Your task to perform on an android device: check out phone information Image 0: 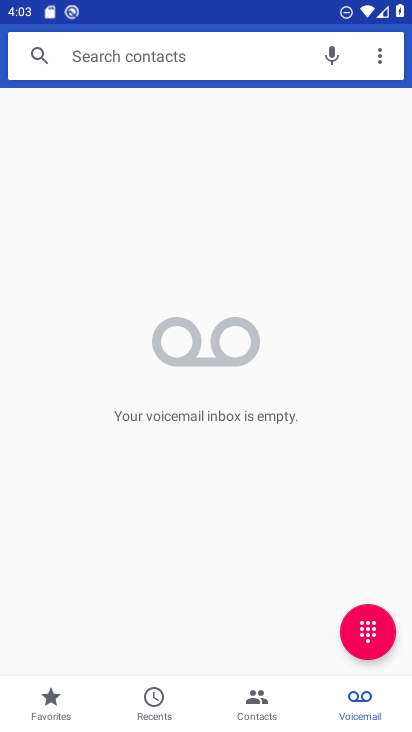
Step 0: press home button
Your task to perform on an android device: check out phone information Image 1: 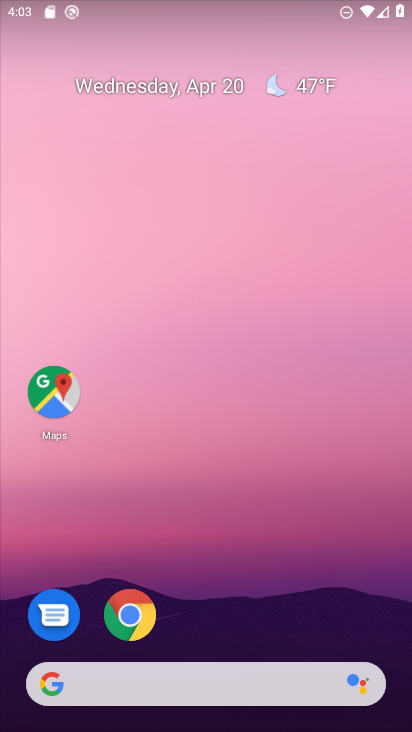
Step 1: drag from (260, 488) to (247, 102)
Your task to perform on an android device: check out phone information Image 2: 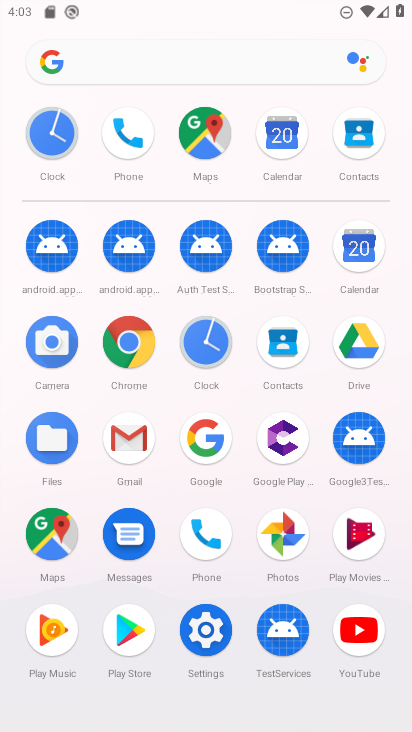
Step 2: click (201, 631)
Your task to perform on an android device: check out phone information Image 3: 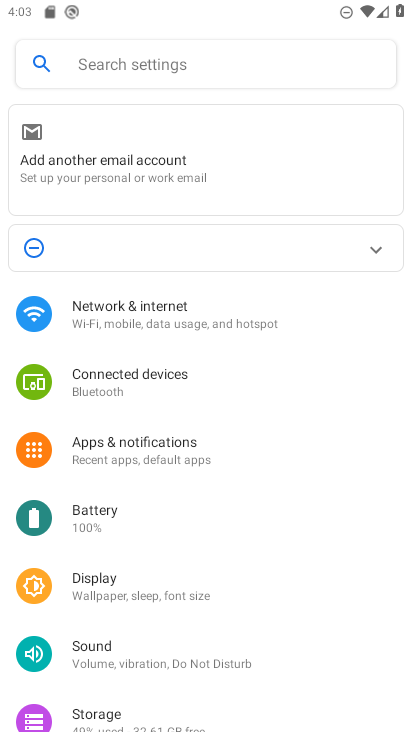
Step 3: drag from (247, 649) to (239, 105)
Your task to perform on an android device: check out phone information Image 4: 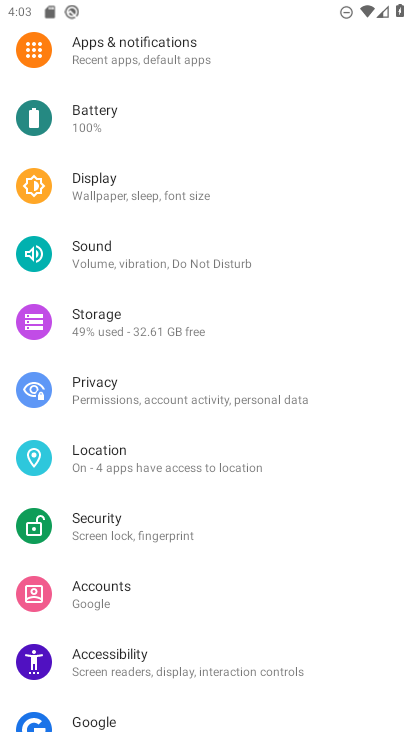
Step 4: drag from (241, 674) to (240, 165)
Your task to perform on an android device: check out phone information Image 5: 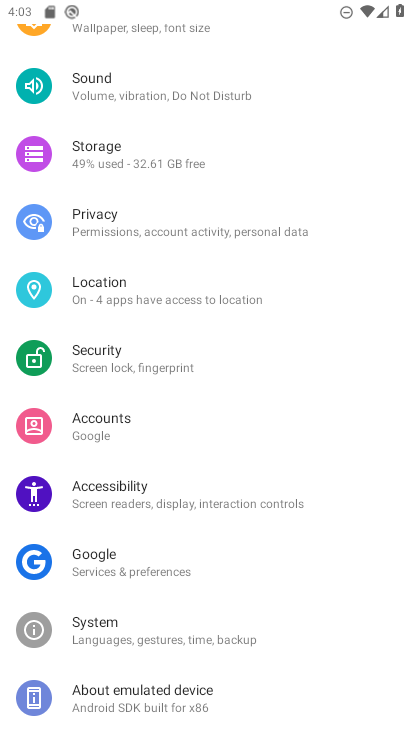
Step 5: click (185, 689)
Your task to perform on an android device: check out phone information Image 6: 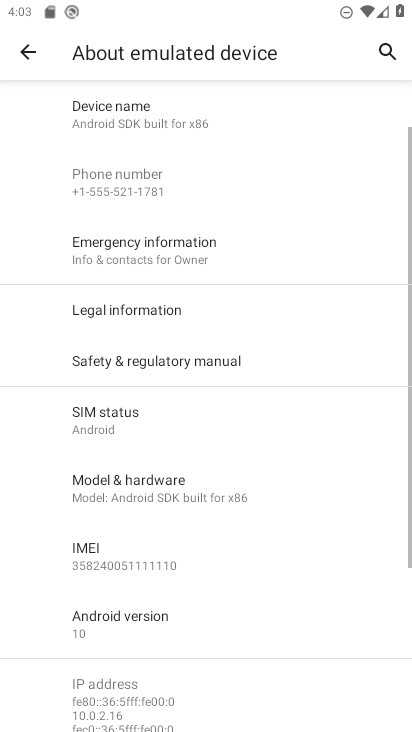
Step 6: drag from (235, 518) to (252, 126)
Your task to perform on an android device: check out phone information Image 7: 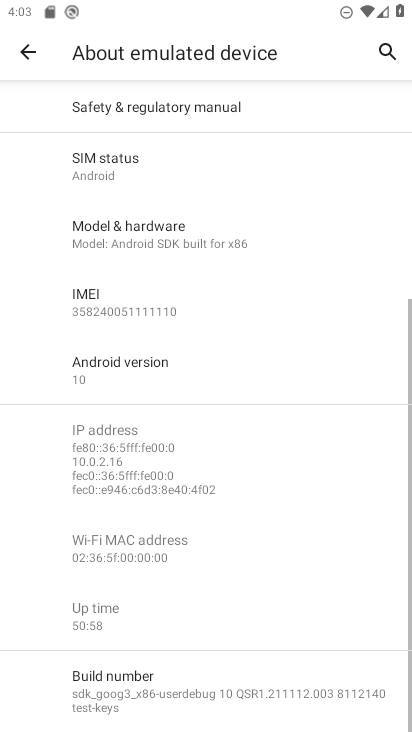
Step 7: drag from (223, 570) to (242, 230)
Your task to perform on an android device: check out phone information Image 8: 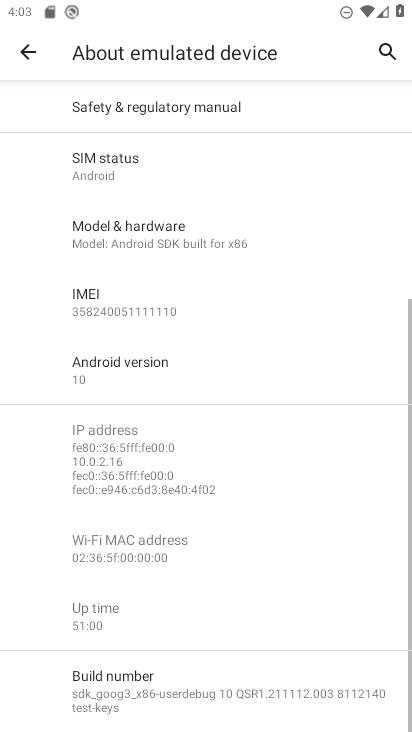
Step 8: drag from (243, 202) to (216, 554)
Your task to perform on an android device: check out phone information Image 9: 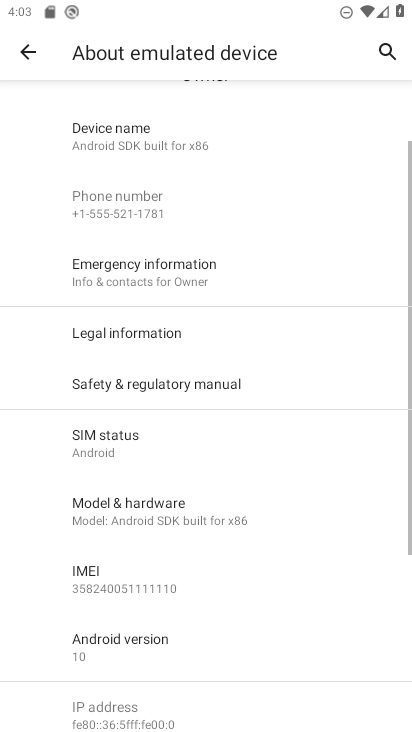
Step 9: click (170, 519)
Your task to perform on an android device: check out phone information Image 10: 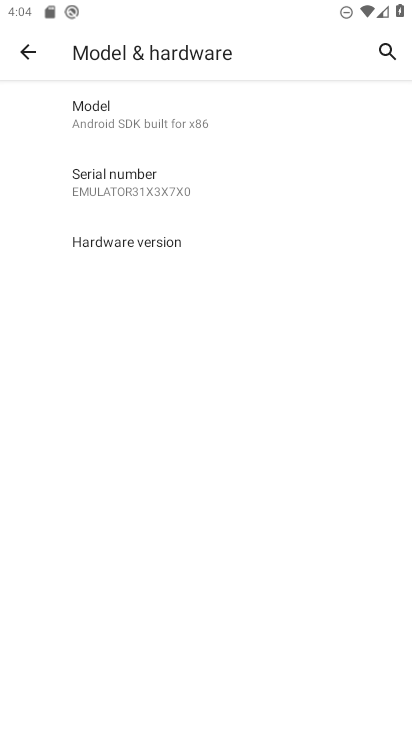
Step 10: task complete